Your task to perform on an android device: change the clock display to digital Image 0: 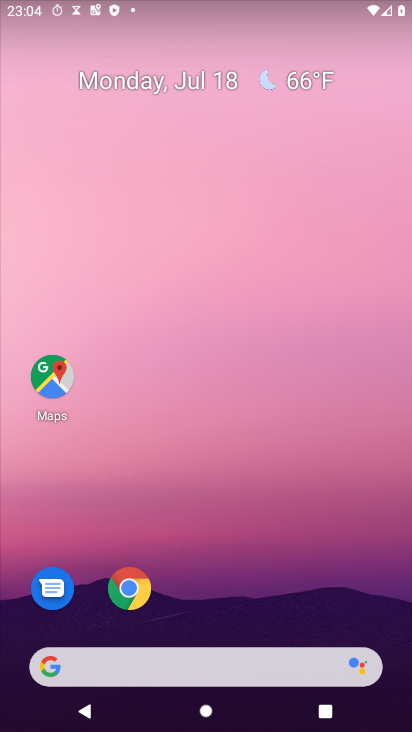
Step 0: press home button
Your task to perform on an android device: change the clock display to digital Image 1: 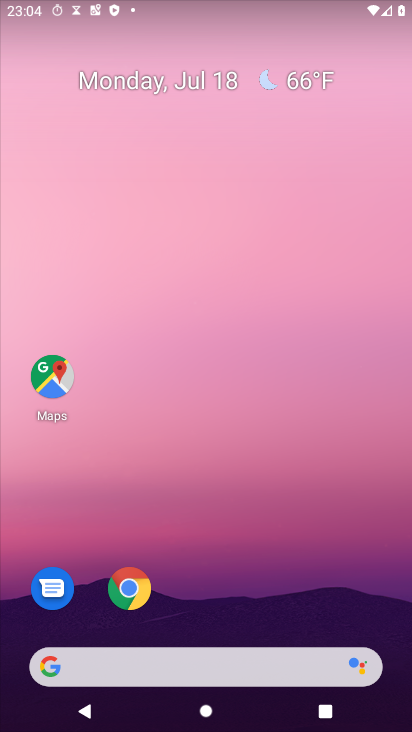
Step 1: drag from (204, 673) to (406, 38)
Your task to perform on an android device: change the clock display to digital Image 2: 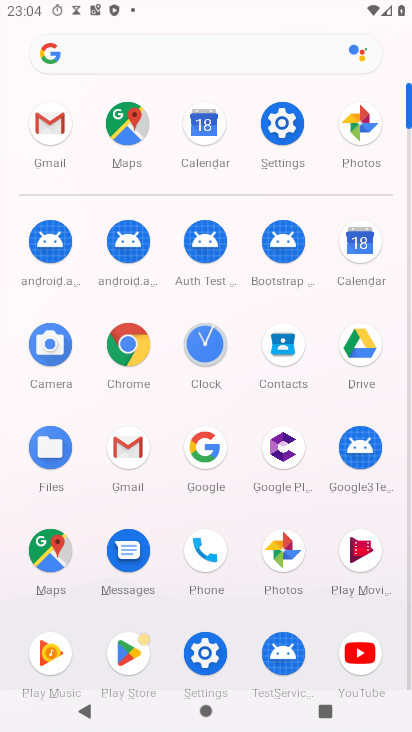
Step 2: click (206, 343)
Your task to perform on an android device: change the clock display to digital Image 3: 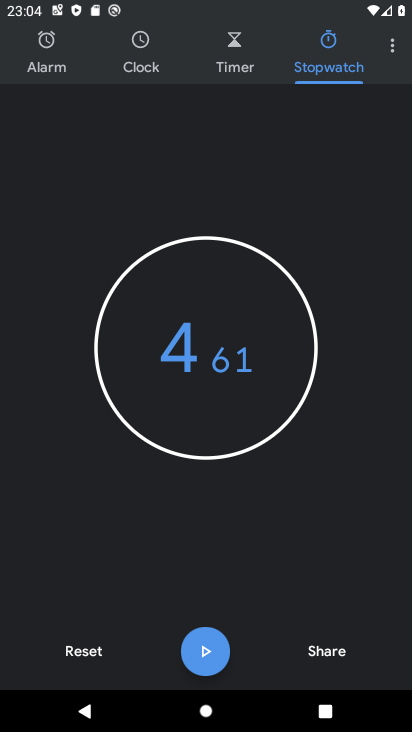
Step 3: click (395, 41)
Your task to perform on an android device: change the clock display to digital Image 4: 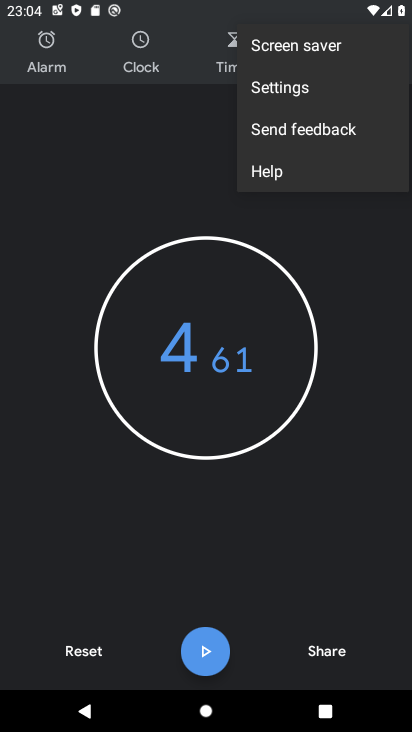
Step 4: click (293, 86)
Your task to perform on an android device: change the clock display to digital Image 5: 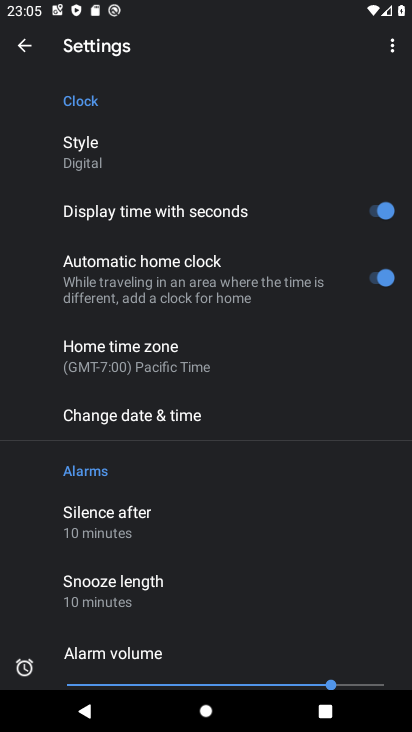
Step 5: task complete